Your task to perform on an android device: Go to Wikipedia Image 0: 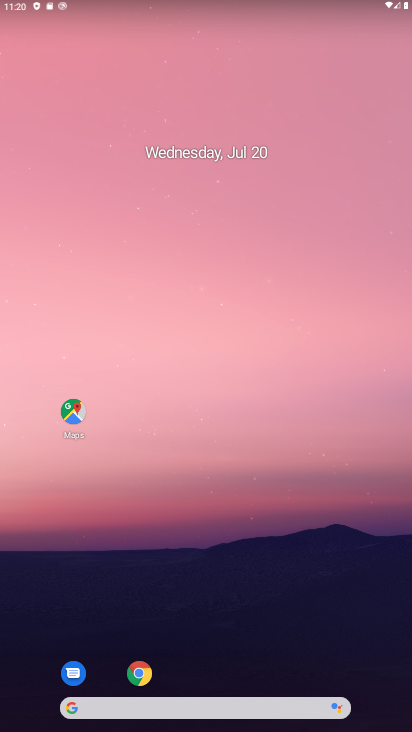
Step 0: drag from (214, 600) to (161, 220)
Your task to perform on an android device: Go to Wikipedia Image 1: 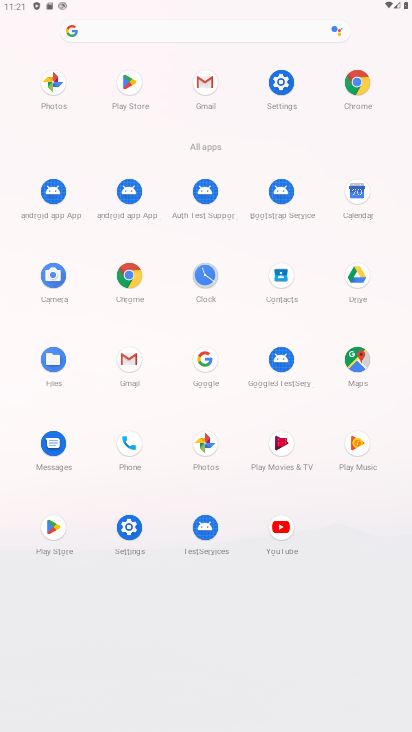
Step 1: click (124, 274)
Your task to perform on an android device: Go to Wikipedia Image 2: 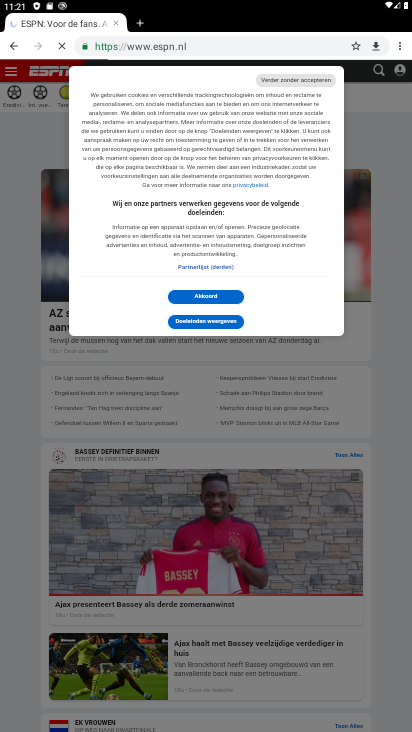
Step 2: click (203, 49)
Your task to perform on an android device: Go to Wikipedia Image 3: 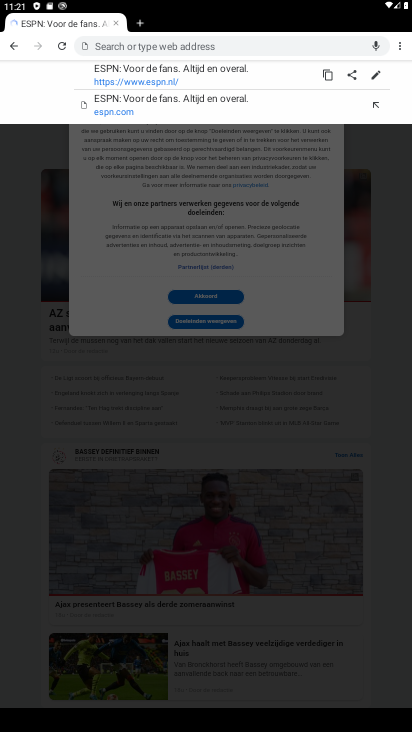
Step 3: type "Wikipedia"
Your task to perform on an android device: Go to Wikipedia Image 4: 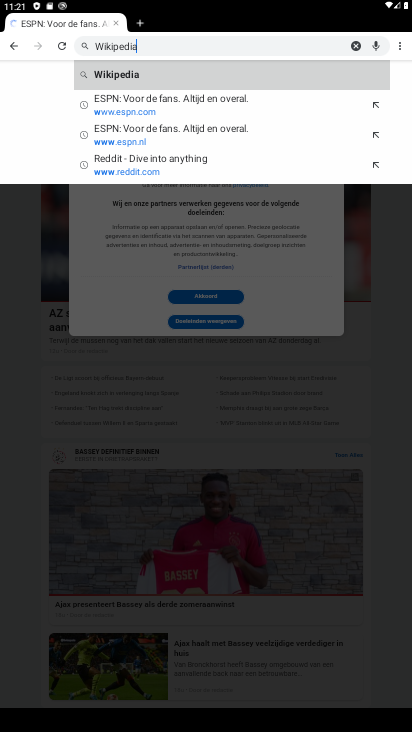
Step 4: type ""
Your task to perform on an android device: Go to Wikipedia Image 5: 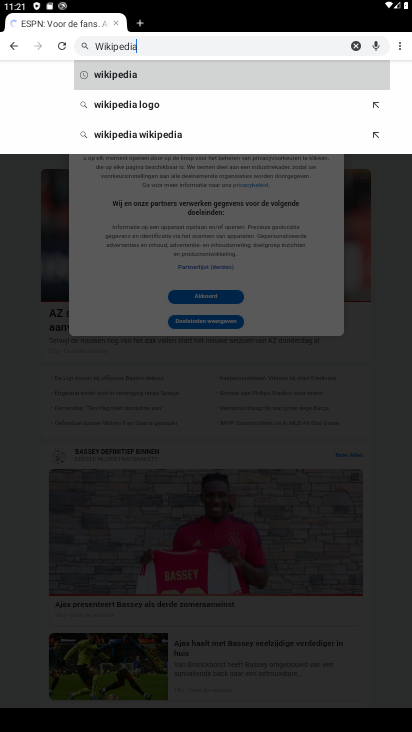
Step 5: click (185, 75)
Your task to perform on an android device: Go to Wikipedia Image 6: 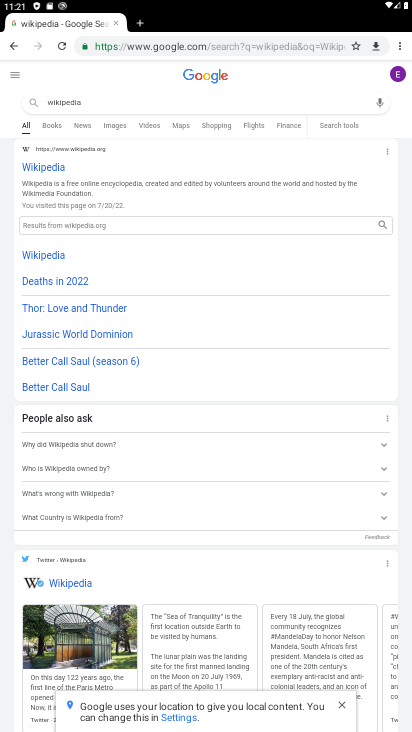
Step 6: click (60, 162)
Your task to perform on an android device: Go to Wikipedia Image 7: 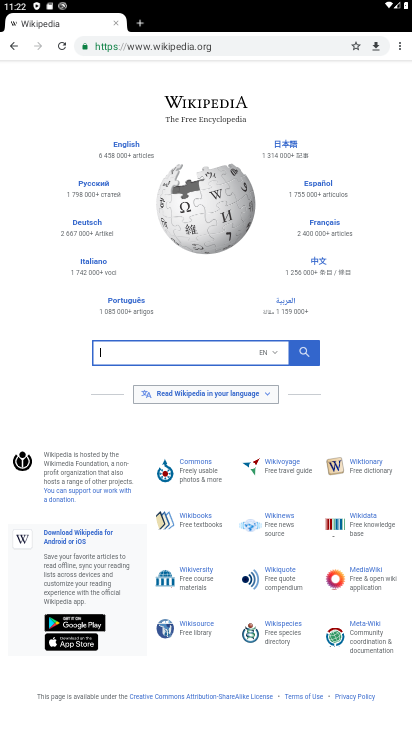
Step 7: task complete